Your task to perform on an android device: Google the capital of Colombia Image 0: 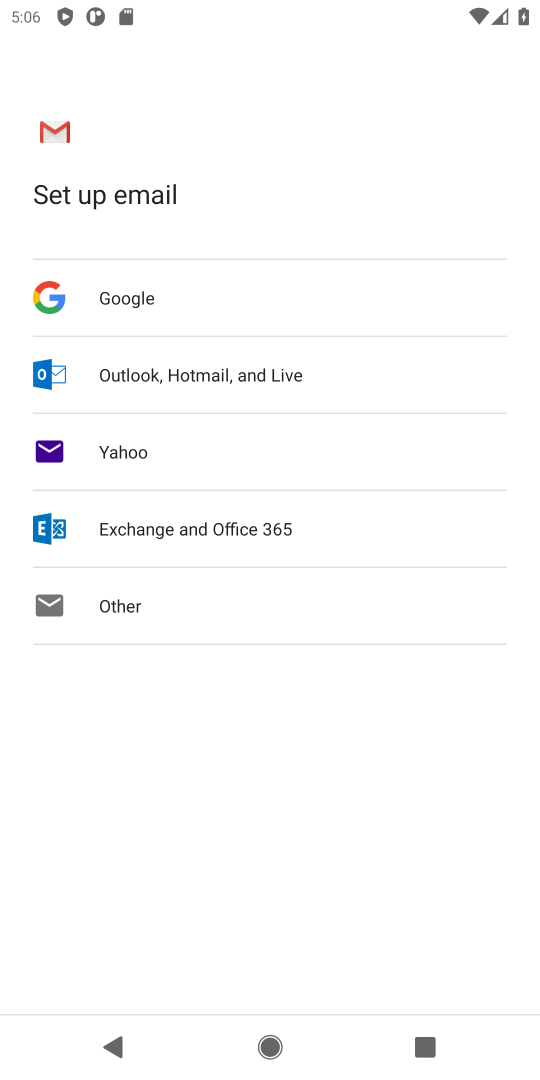
Step 0: press home button
Your task to perform on an android device: Google the capital of Colombia Image 1: 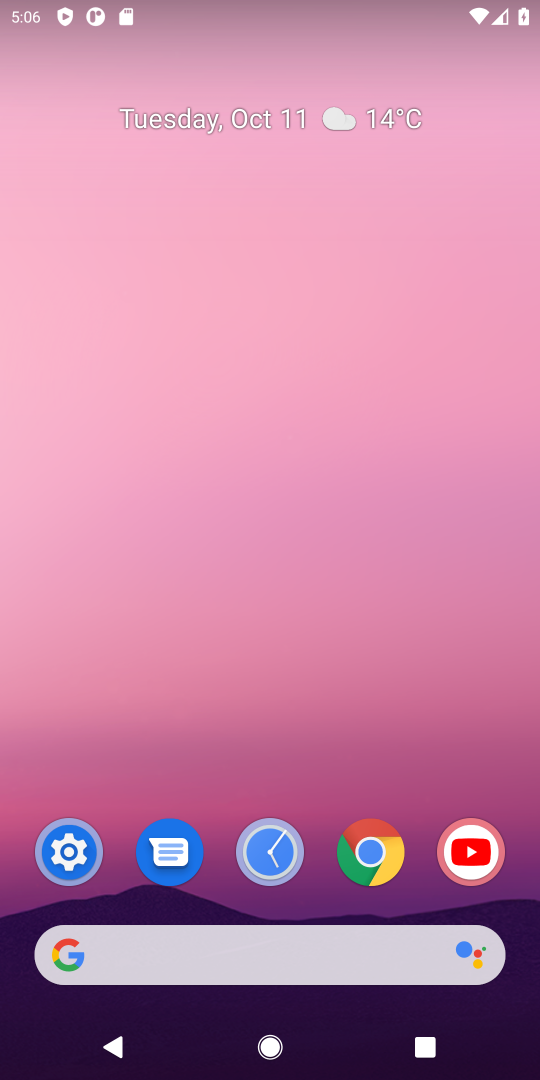
Step 1: click (363, 848)
Your task to perform on an android device: Google the capital of Colombia Image 2: 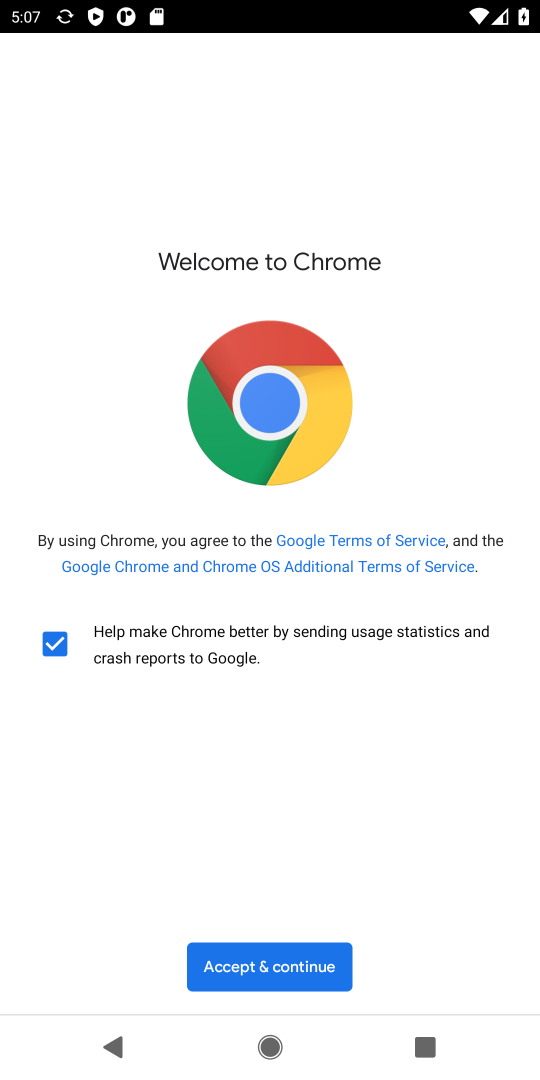
Step 2: click (287, 965)
Your task to perform on an android device: Google the capital of Colombia Image 3: 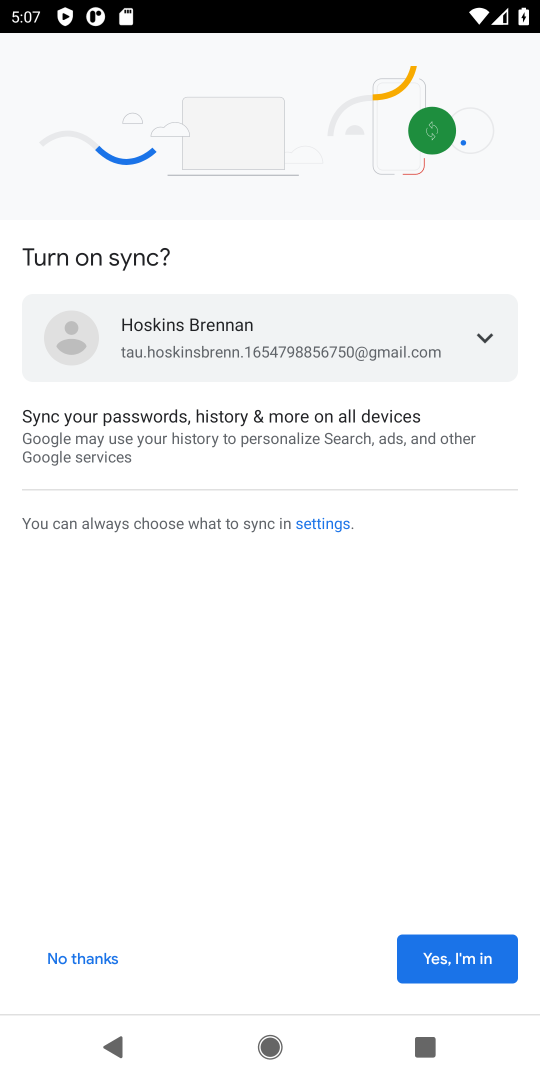
Step 3: click (448, 978)
Your task to perform on an android device: Google the capital of Colombia Image 4: 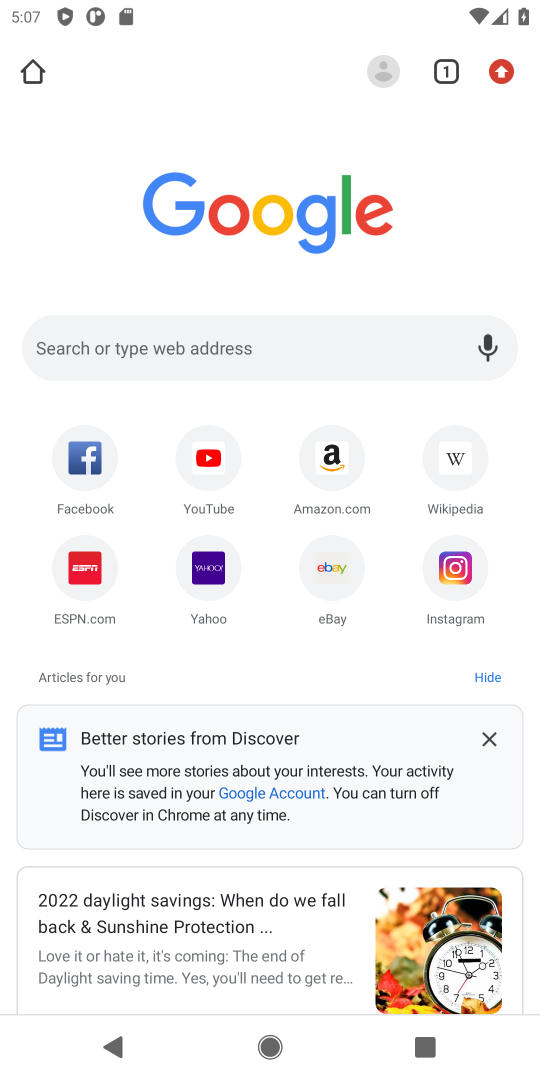
Step 4: click (248, 333)
Your task to perform on an android device: Google the capital of Colombia Image 5: 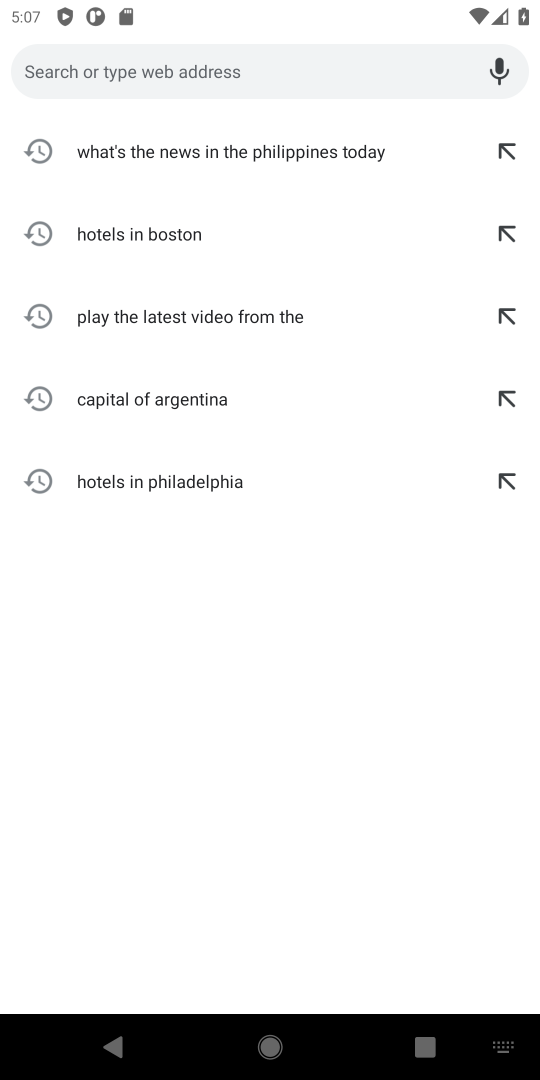
Step 5: type "Google the capital of Colombia"
Your task to perform on an android device: Google the capital of Colombia Image 6: 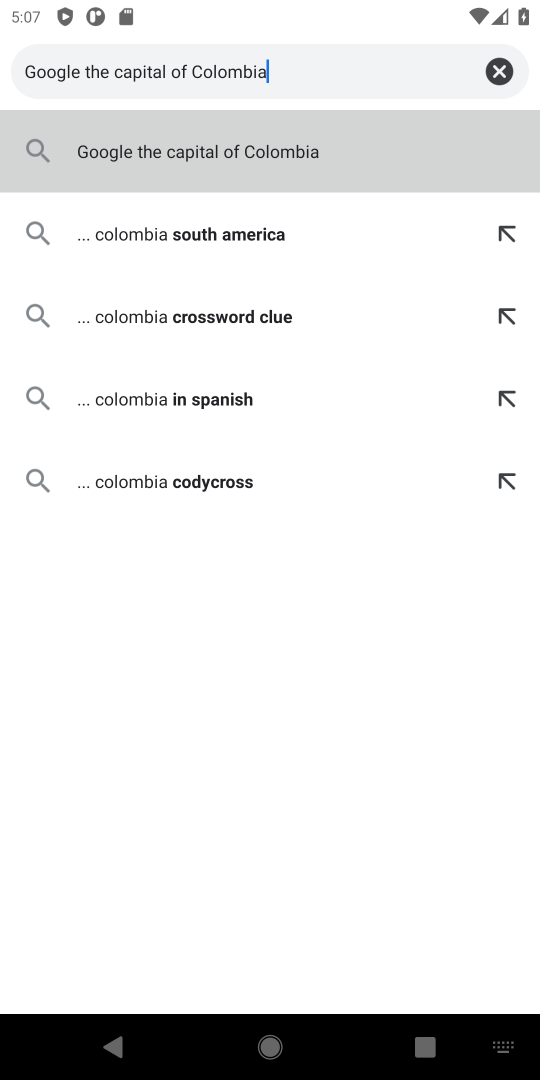
Step 6: click (301, 147)
Your task to perform on an android device: Google the capital of Colombia Image 7: 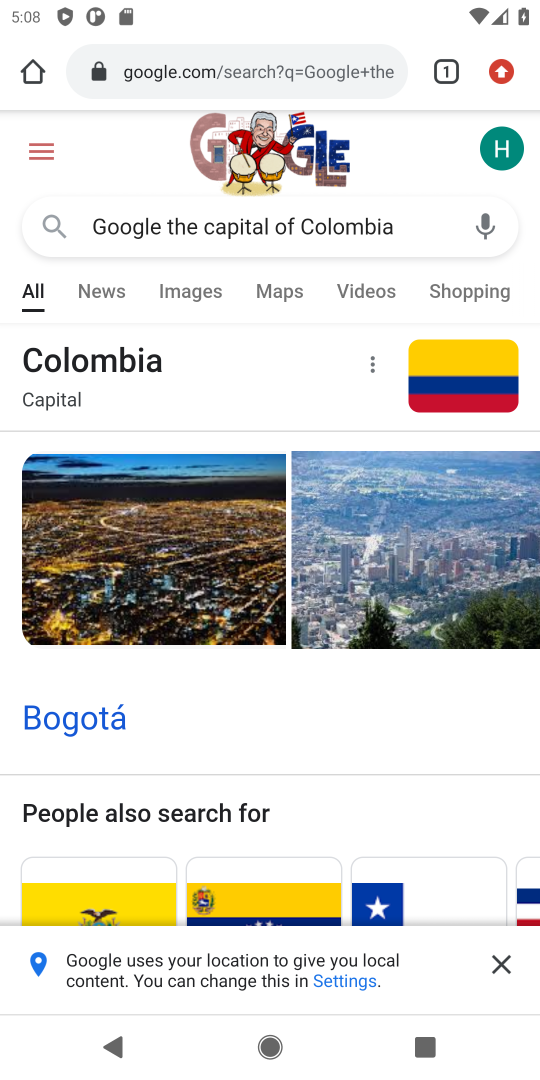
Step 7: task complete